Your task to perform on an android device: open chrome and create a bookmark for the current page Image 0: 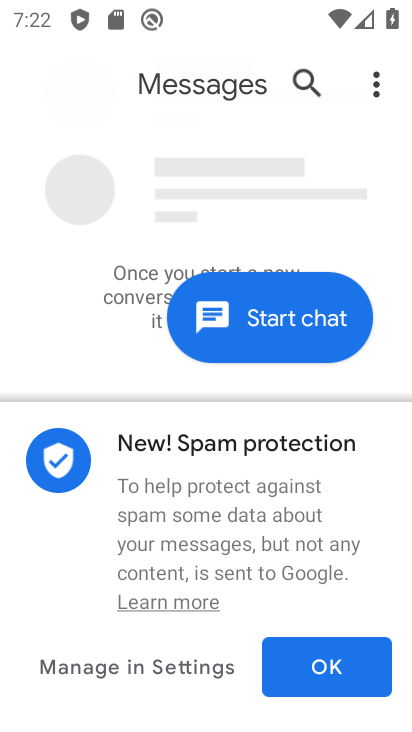
Step 0: press home button
Your task to perform on an android device: open chrome and create a bookmark for the current page Image 1: 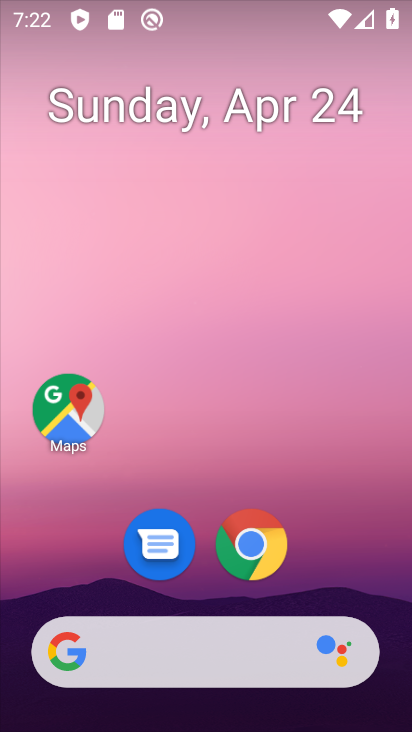
Step 1: drag from (152, 643) to (321, 152)
Your task to perform on an android device: open chrome and create a bookmark for the current page Image 2: 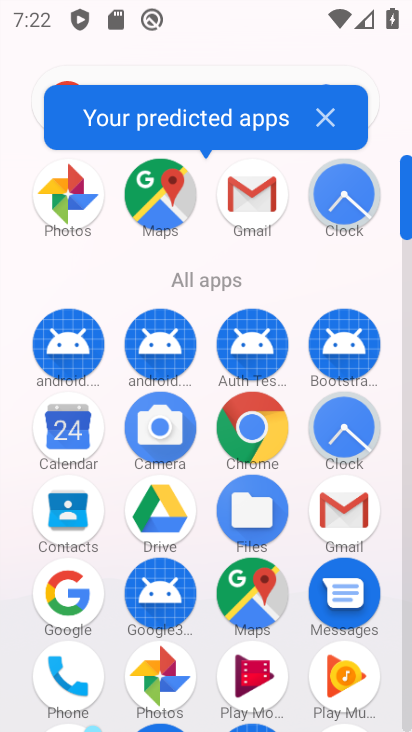
Step 2: click (261, 437)
Your task to perform on an android device: open chrome and create a bookmark for the current page Image 3: 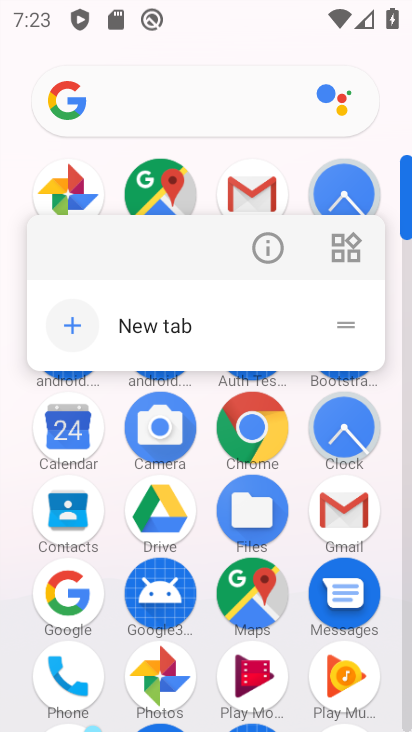
Step 3: click (253, 432)
Your task to perform on an android device: open chrome and create a bookmark for the current page Image 4: 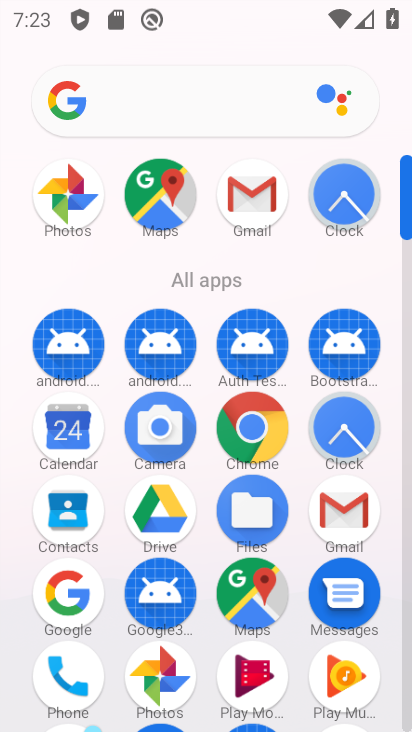
Step 4: click (246, 438)
Your task to perform on an android device: open chrome and create a bookmark for the current page Image 5: 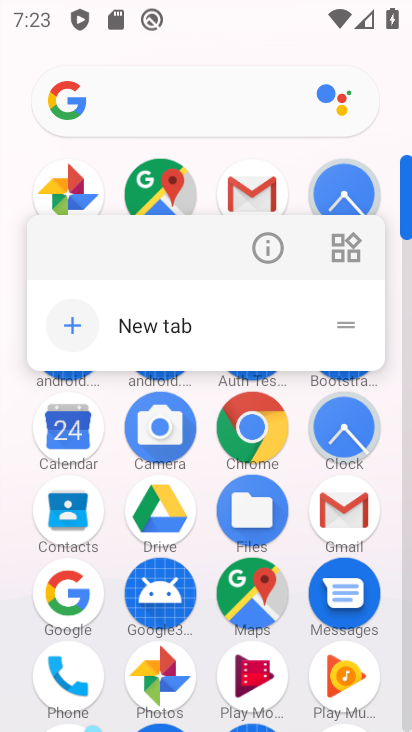
Step 5: click (247, 436)
Your task to perform on an android device: open chrome and create a bookmark for the current page Image 6: 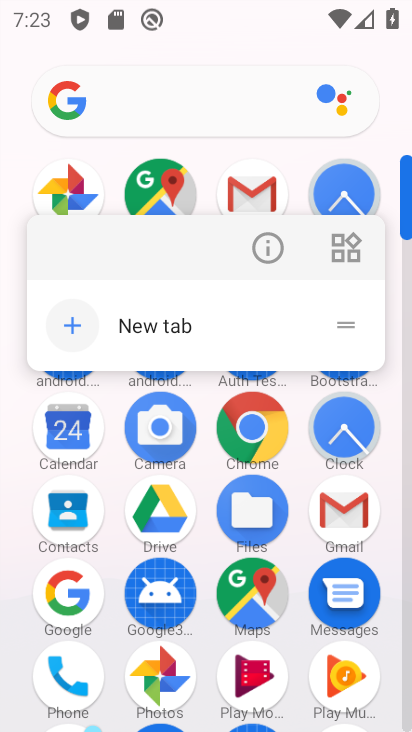
Step 6: click (260, 426)
Your task to perform on an android device: open chrome and create a bookmark for the current page Image 7: 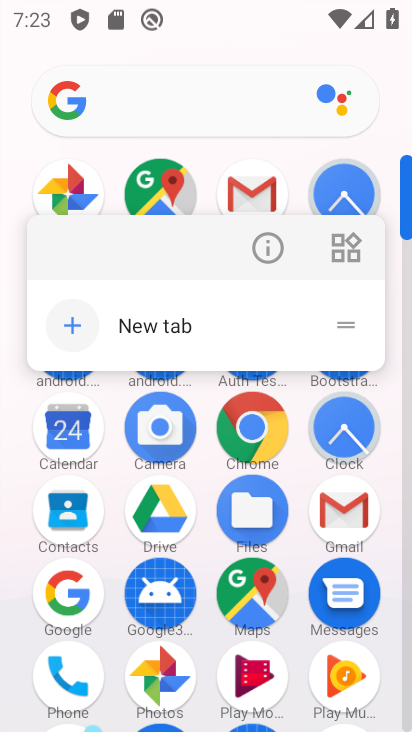
Step 7: click (254, 439)
Your task to perform on an android device: open chrome and create a bookmark for the current page Image 8: 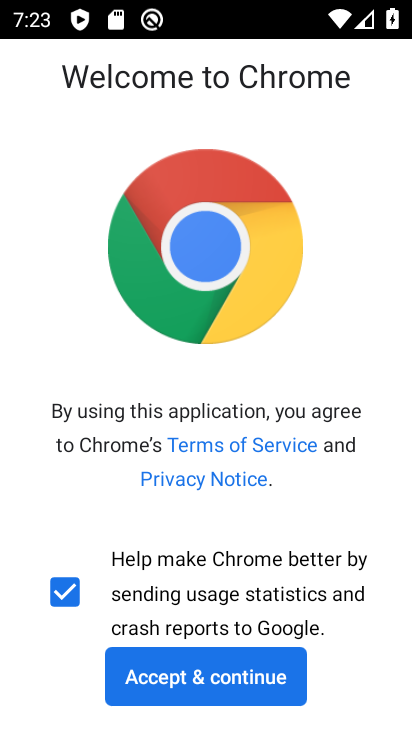
Step 8: click (198, 682)
Your task to perform on an android device: open chrome and create a bookmark for the current page Image 9: 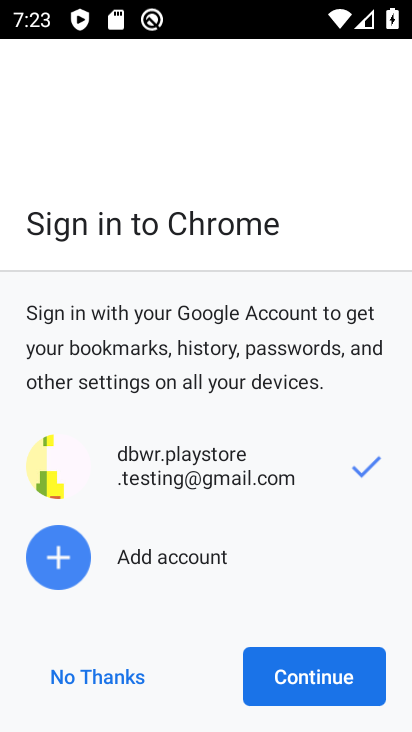
Step 9: click (272, 680)
Your task to perform on an android device: open chrome and create a bookmark for the current page Image 10: 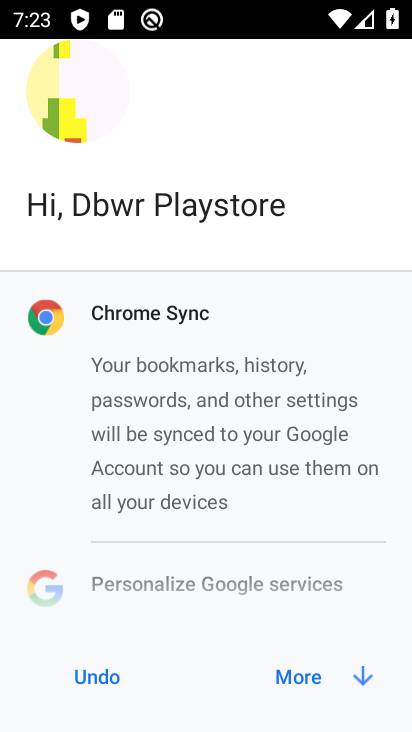
Step 10: click (304, 689)
Your task to perform on an android device: open chrome and create a bookmark for the current page Image 11: 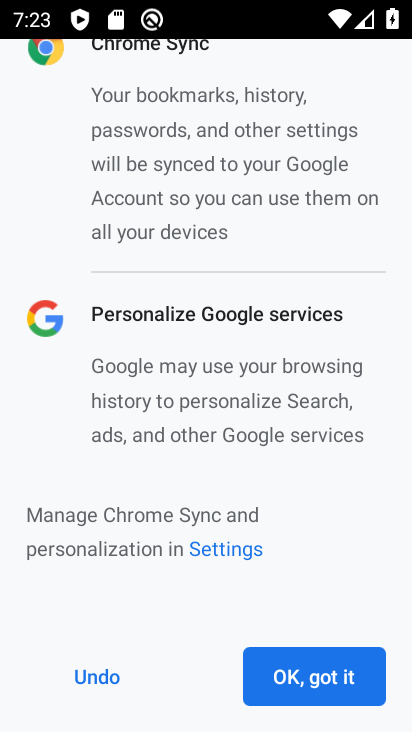
Step 11: click (308, 672)
Your task to perform on an android device: open chrome and create a bookmark for the current page Image 12: 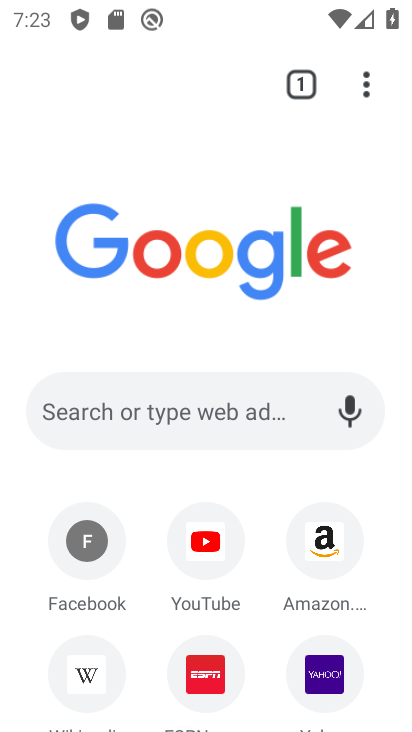
Step 12: click (363, 98)
Your task to perform on an android device: open chrome and create a bookmark for the current page Image 13: 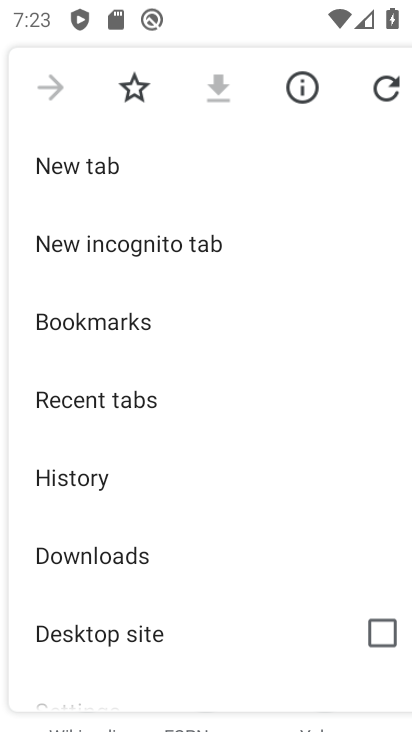
Step 13: click (132, 86)
Your task to perform on an android device: open chrome and create a bookmark for the current page Image 14: 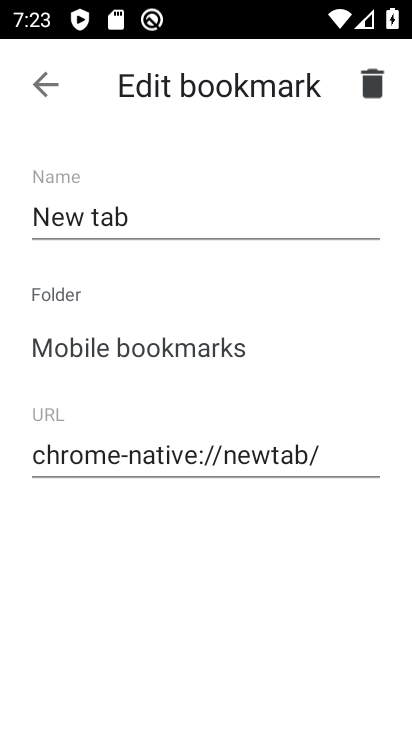
Step 14: click (37, 82)
Your task to perform on an android device: open chrome and create a bookmark for the current page Image 15: 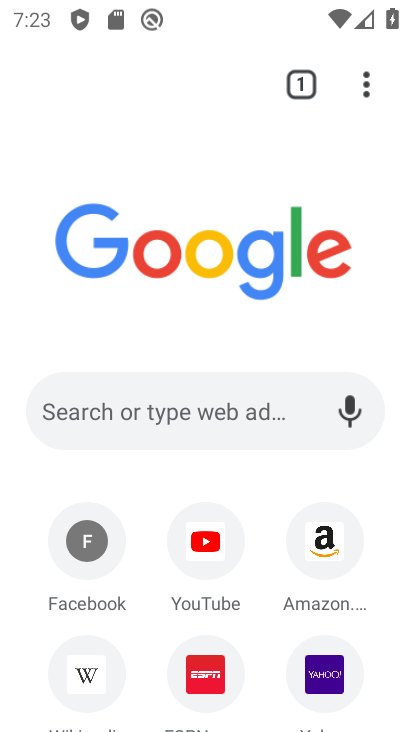
Step 15: click (365, 93)
Your task to perform on an android device: open chrome and create a bookmark for the current page Image 16: 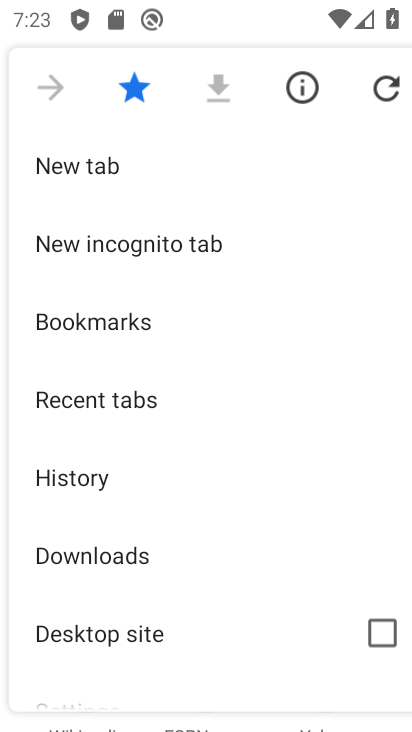
Step 16: task complete